Your task to perform on an android device: empty trash in google photos Image 0: 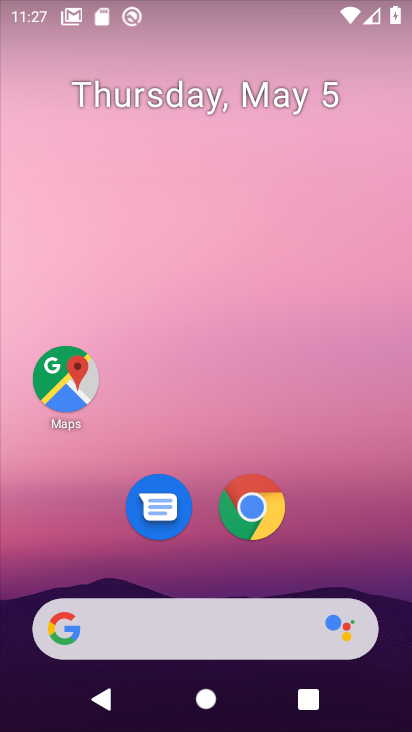
Step 0: drag from (365, 559) to (250, 71)
Your task to perform on an android device: empty trash in google photos Image 1: 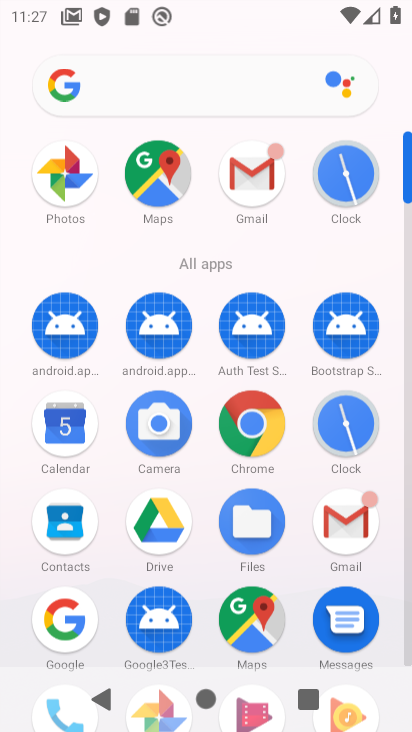
Step 1: drag from (338, 522) to (296, 292)
Your task to perform on an android device: empty trash in google photos Image 2: 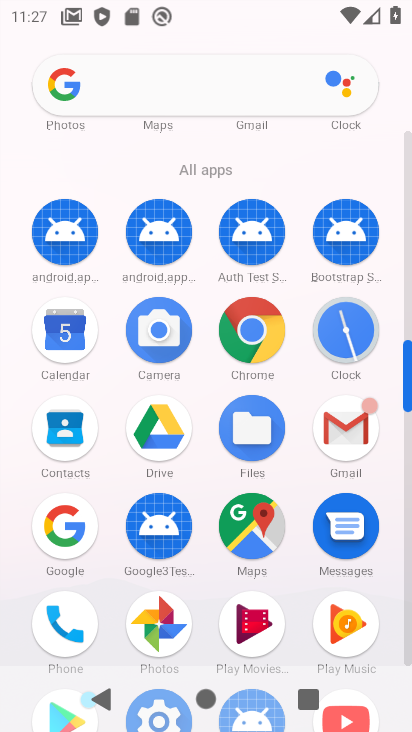
Step 2: click (150, 633)
Your task to perform on an android device: empty trash in google photos Image 3: 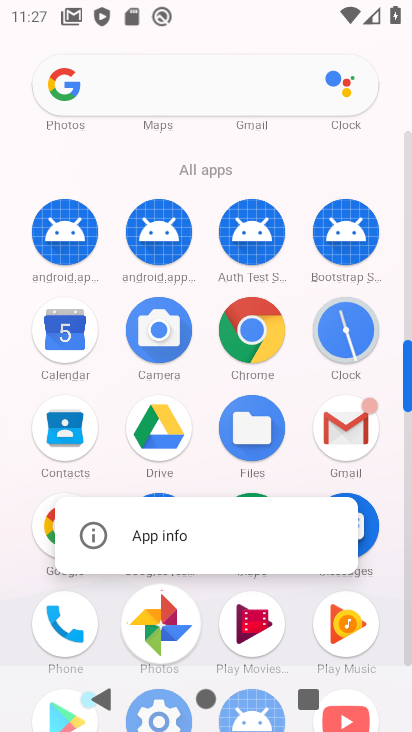
Step 3: click (154, 632)
Your task to perform on an android device: empty trash in google photos Image 4: 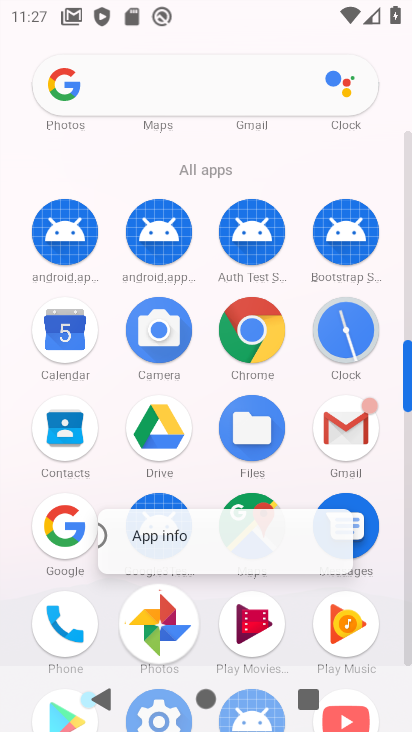
Step 4: click (159, 628)
Your task to perform on an android device: empty trash in google photos Image 5: 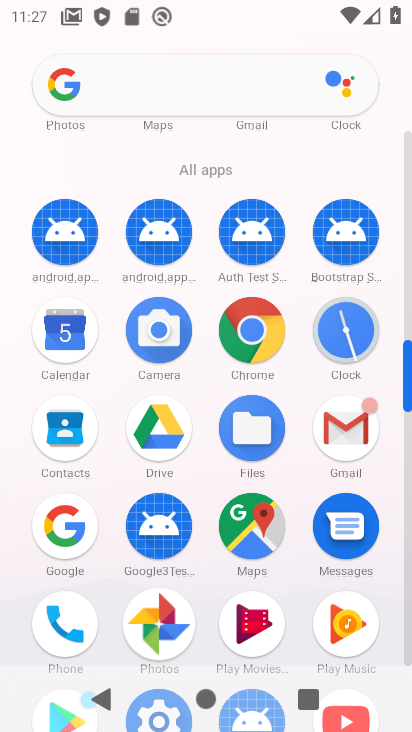
Step 5: click (164, 623)
Your task to perform on an android device: empty trash in google photos Image 6: 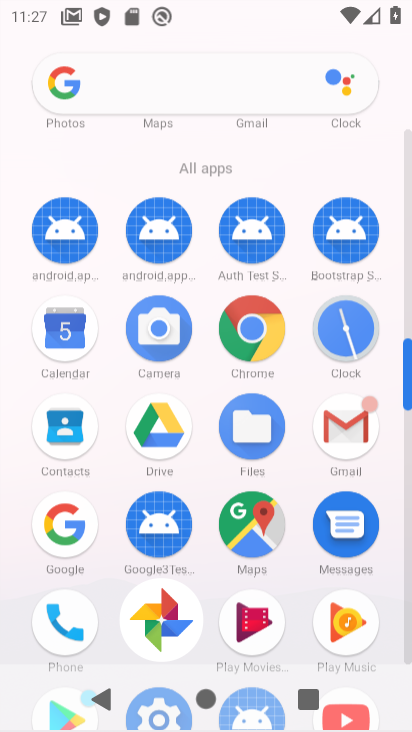
Step 6: click (162, 618)
Your task to perform on an android device: empty trash in google photos Image 7: 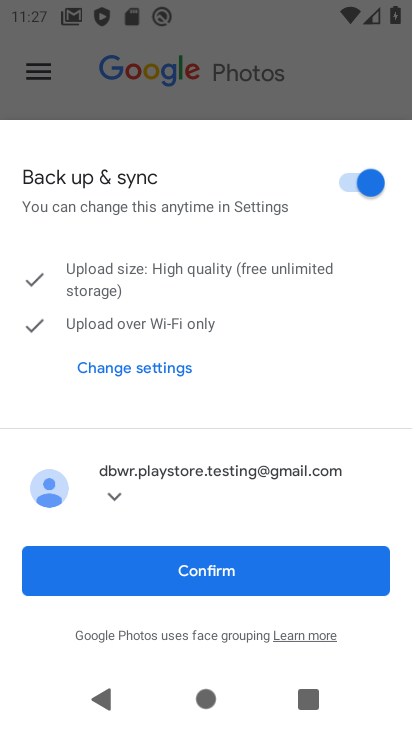
Step 7: click (233, 565)
Your task to perform on an android device: empty trash in google photos Image 8: 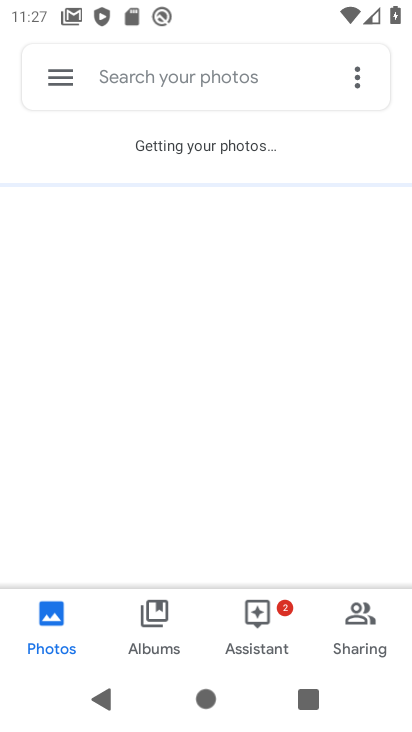
Step 8: click (59, 77)
Your task to perform on an android device: empty trash in google photos Image 9: 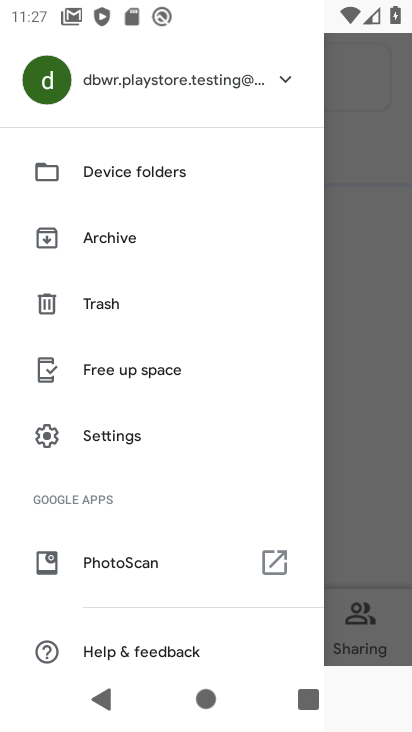
Step 9: click (97, 300)
Your task to perform on an android device: empty trash in google photos Image 10: 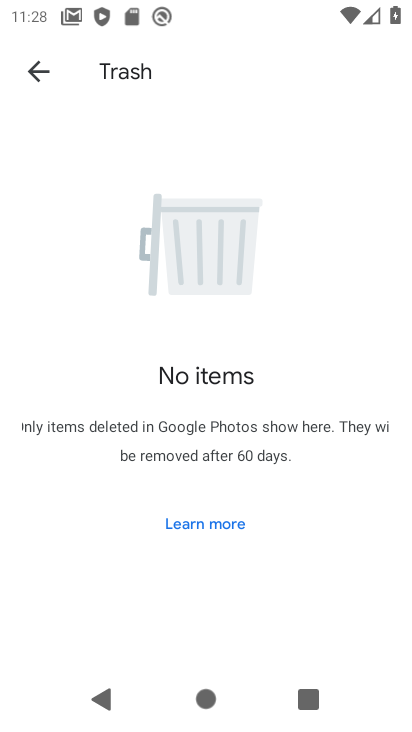
Step 10: task complete